Your task to perform on an android device: Go to Maps Image 0: 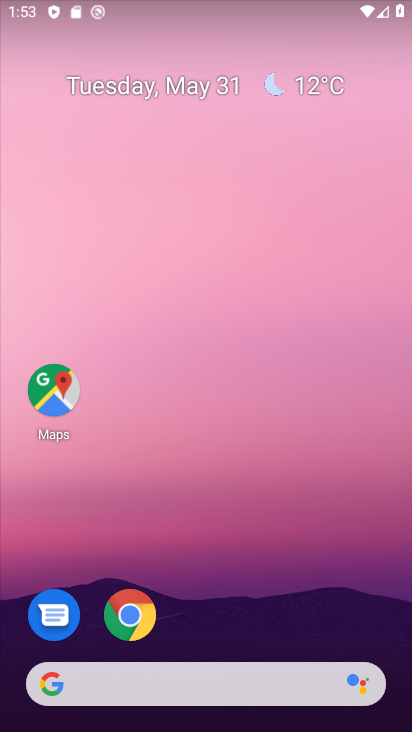
Step 0: drag from (178, 685) to (289, 80)
Your task to perform on an android device: Go to Maps Image 1: 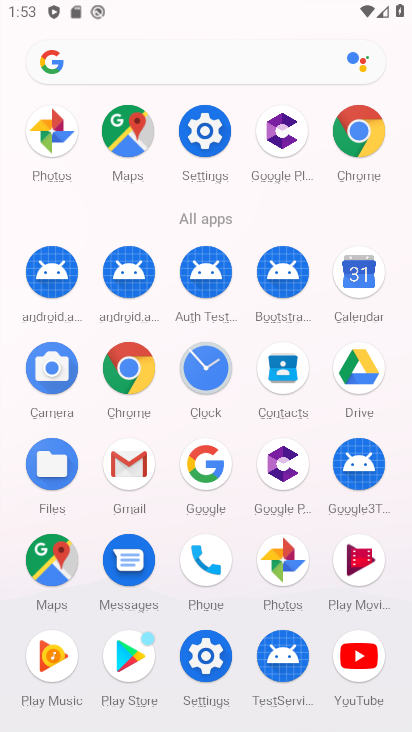
Step 1: drag from (177, 605) to (217, 321)
Your task to perform on an android device: Go to Maps Image 2: 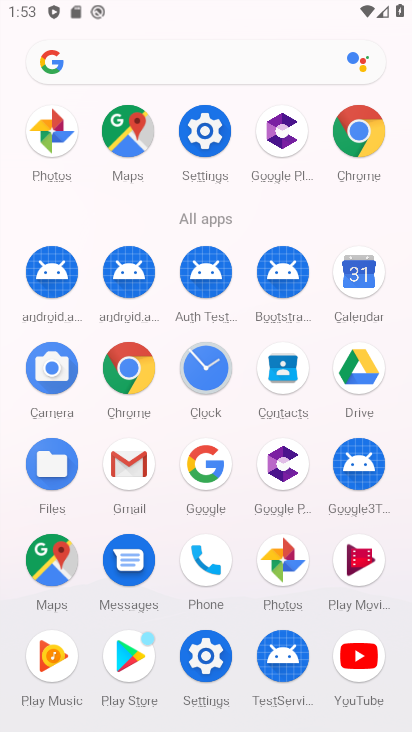
Step 2: click (43, 569)
Your task to perform on an android device: Go to Maps Image 3: 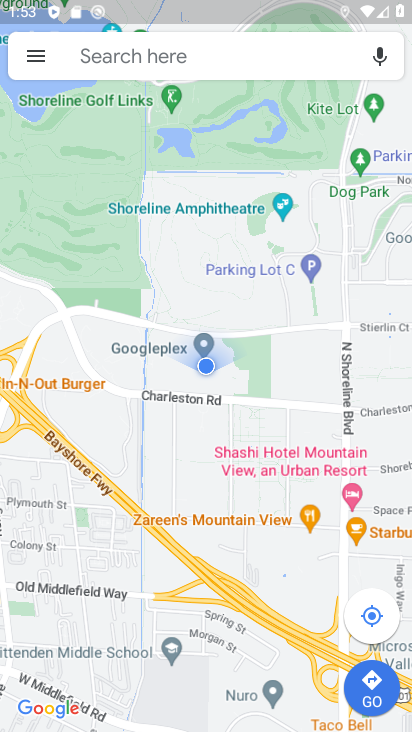
Step 3: task complete